Your task to perform on an android device: search for starred emails in the gmail app Image 0: 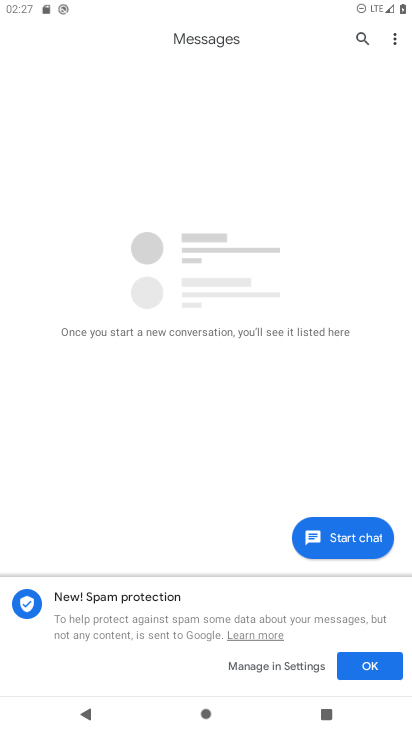
Step 0: press home button
Your task to perform on an android device: search for starred emails in the gmail app Image 1: 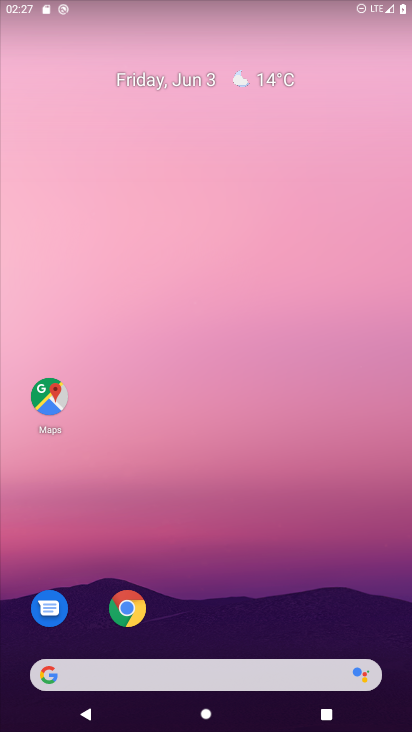
Step 1: drag from (269, 595) to (286, 154)
Your task to perform on an android device: search for starred emails in the gmail app Image 2: 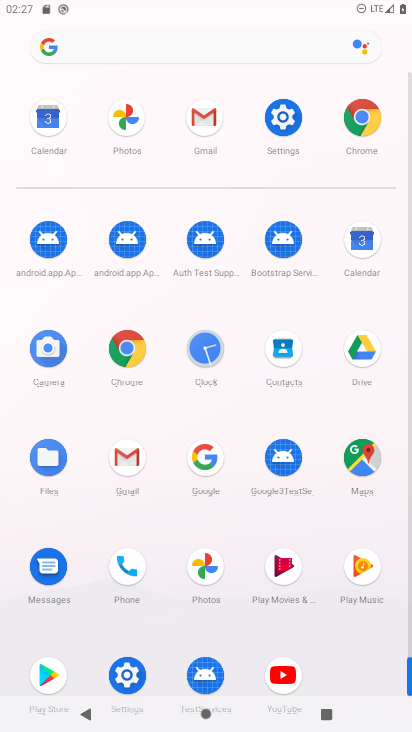
Step 2: click (196, 128)
Your task to perform on an android device: search for starred emails in the gmail app Image 3: 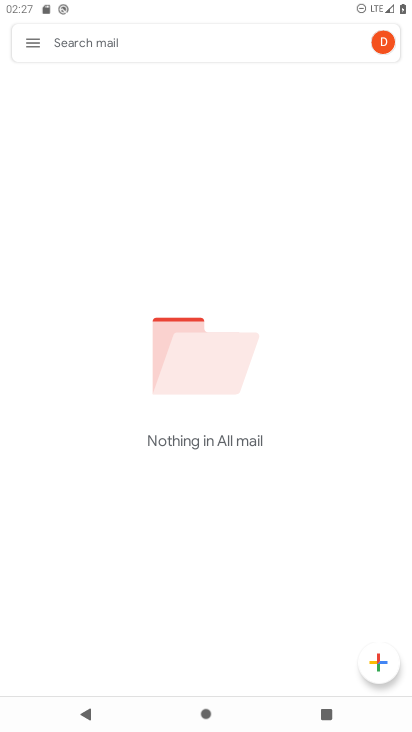
Step 3: click (35, 38)
Your task to perform on an android device: search for starred emails in the gmail app Image 4: 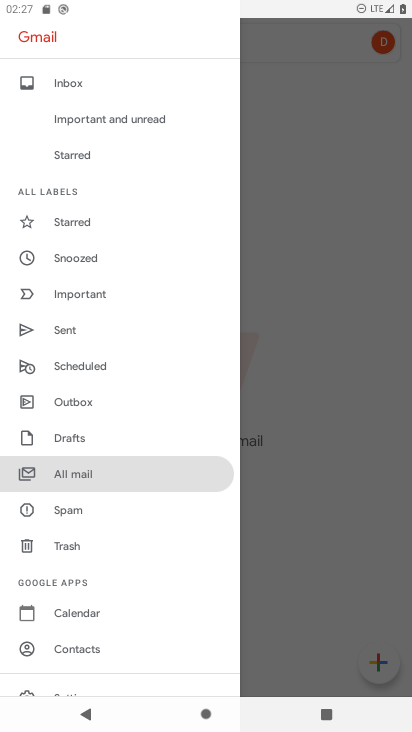
Step 4: click (78, 229)
Your task to perform on an android device: search for starred emails in the gmail app Image 5: 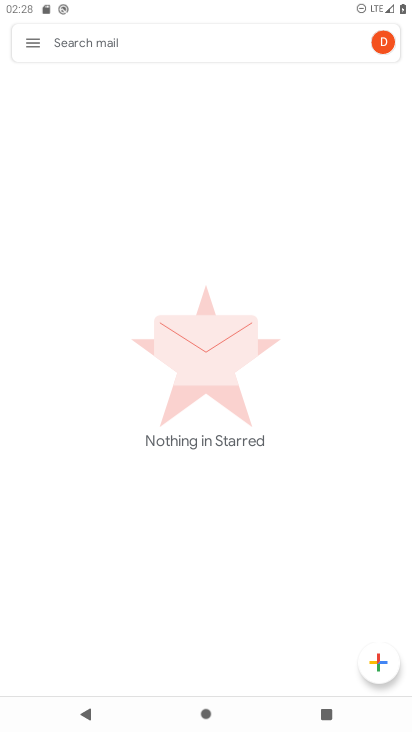
Step 5: task complete